Your task to perform on an android device: Turn off the flashlight Image 0: 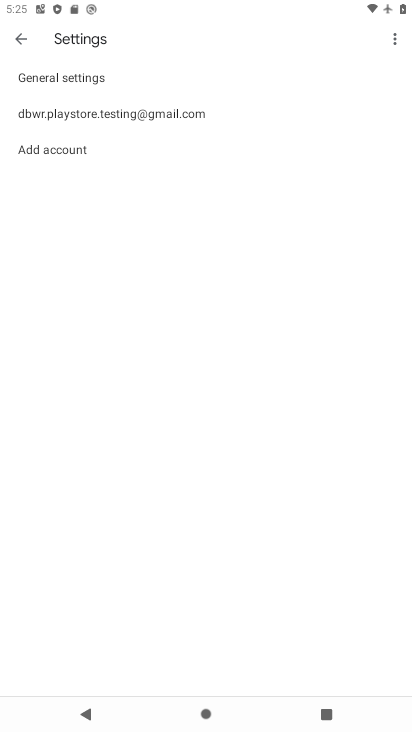
Step 0: drag from (221, 576) to (297, 114)
Your task to perform on an android device: Turn off the flashlight Image 1: 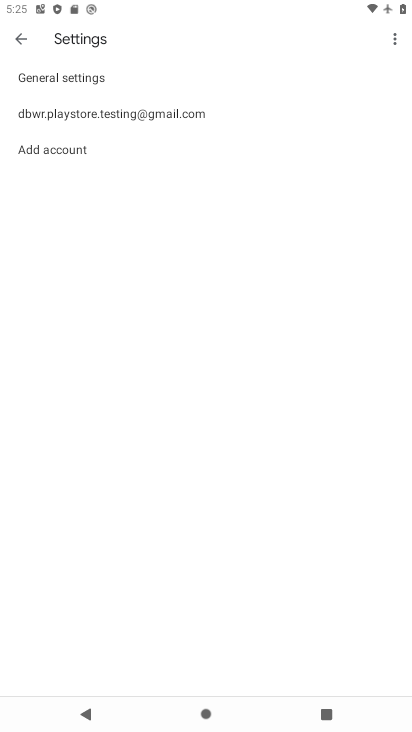
Step 1: press back button
Your task to perform on an android device: Turn off the flashlight Image 2: 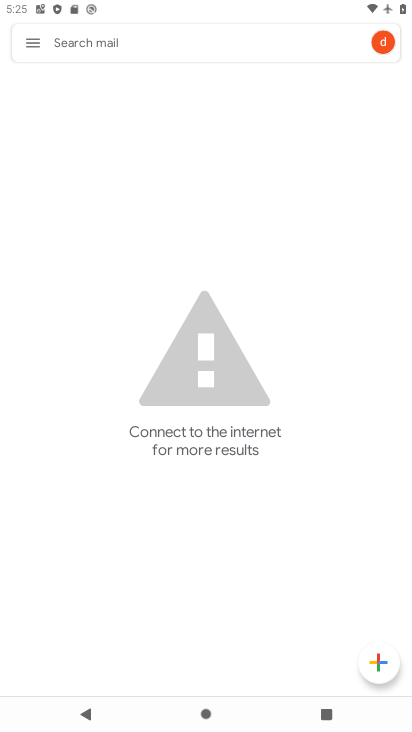
Step 2: press back button
Your task to perform on an android device: Turn off the flashlight Image 3: 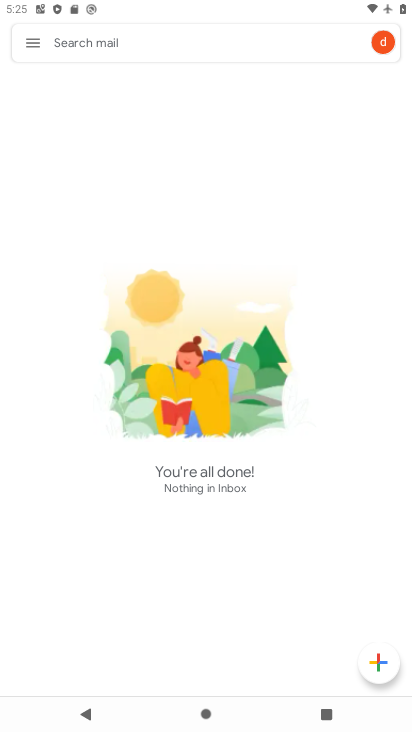
Step 3: press back button
Your task to perform on an android device: Turn off the flashlight Image 4: 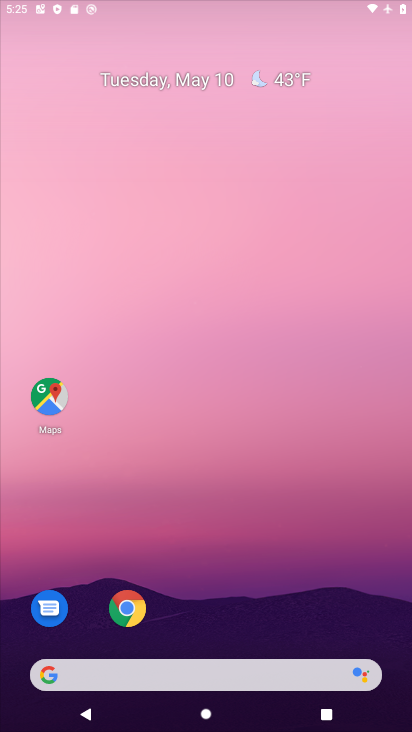
Step 4: press home button
Your task to perform on an android device: Turn off the flashlight Image 5: 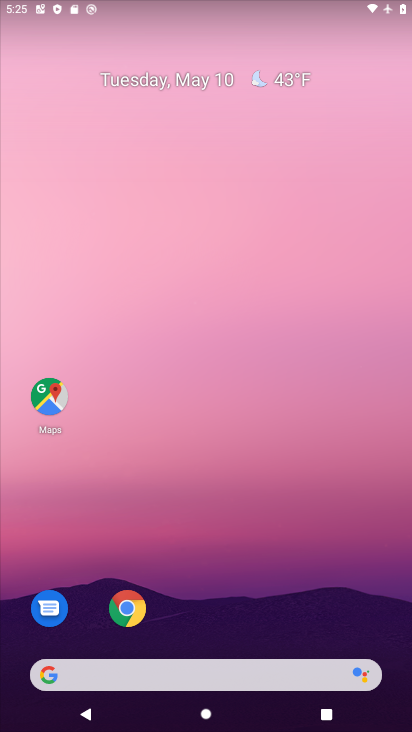
Step 5: drag from (246, 560) to (339, 3)
Your task to perform on an android device: Turn off the flashlight Image 6: 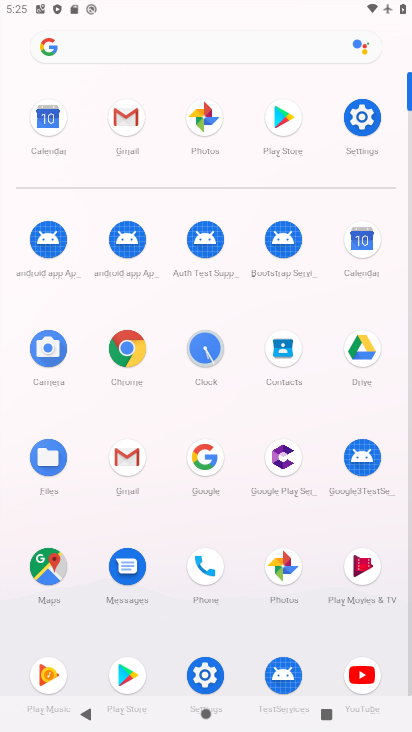
Step 6: click (365, 133)
Your task to perform on an android device: Turn off the flashlight Image 7: 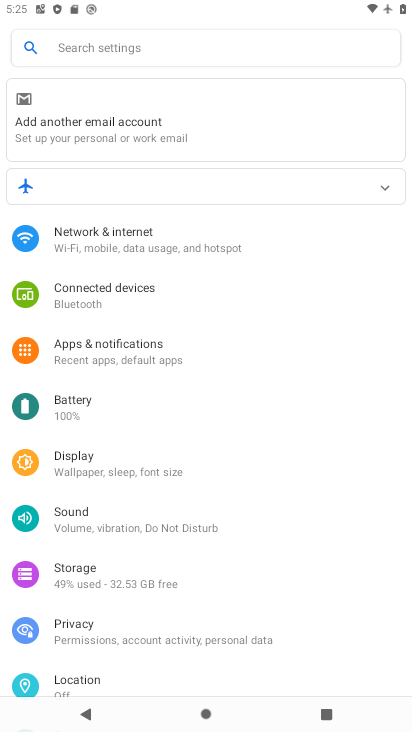
Step 7: click (99, 48)
Your task to perform on an android device: Turn off the flashlight Image 8: 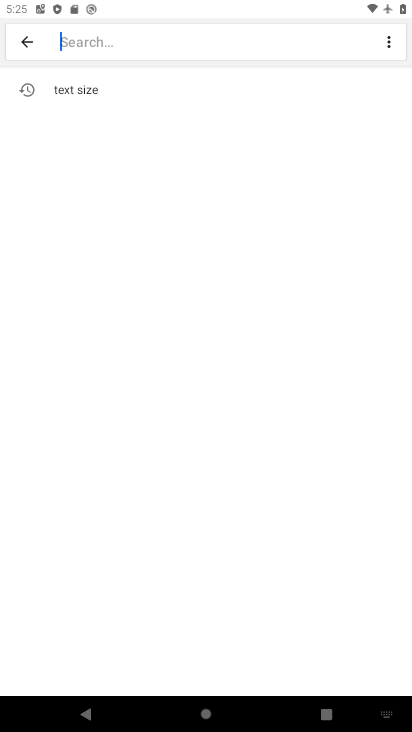
Step 8: type "flashlight"
Your task to perform on an android device: Turn off the flashlight Image 9: 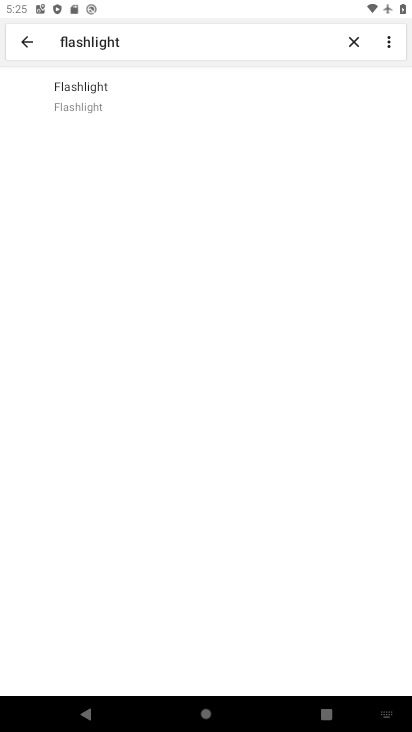
Step 9: click (82, 97)
Your task to perform on an android device: Turn off the flashlight Image 10: 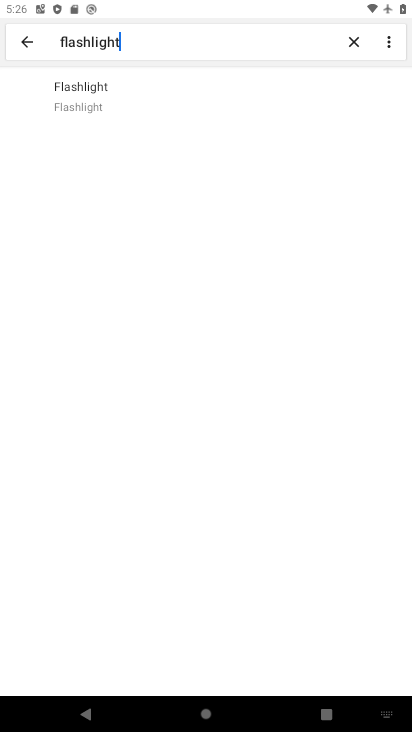
Step 10: task complete